Your task to perform on an android device: Go to Android settings Image 0: 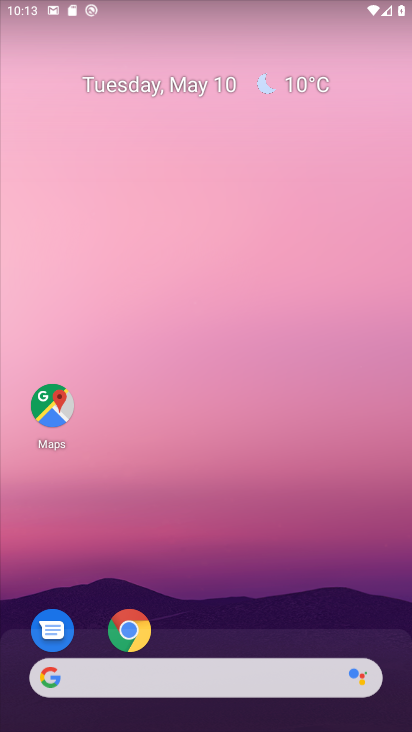
Step 0: drag from (286, 626) to (360, 5)
Your task to perform on an android device: Go to Android settings Image 1: 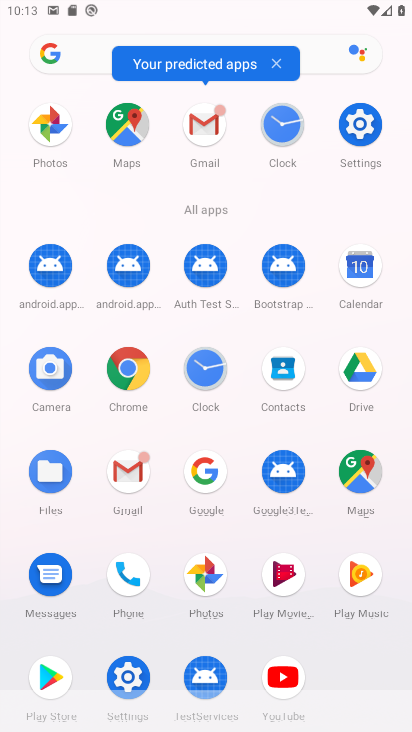
Step 1: click (349, 120)
Your task to perform on an android device: Go to Android settings Image 2: 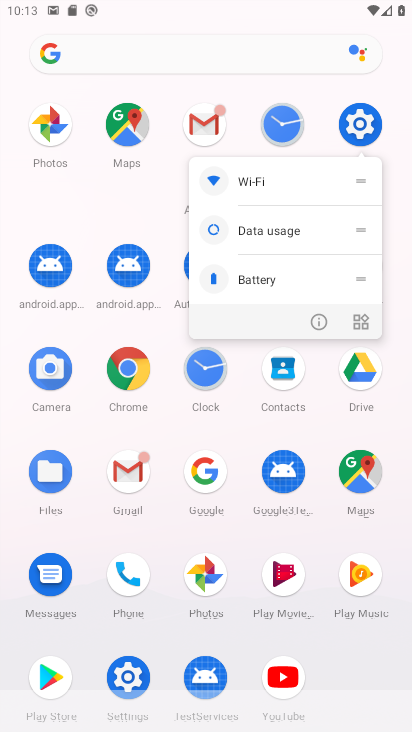
Step 2: click (351, 131)
Your task to perform on an android device: Go to Android settings Image 3: 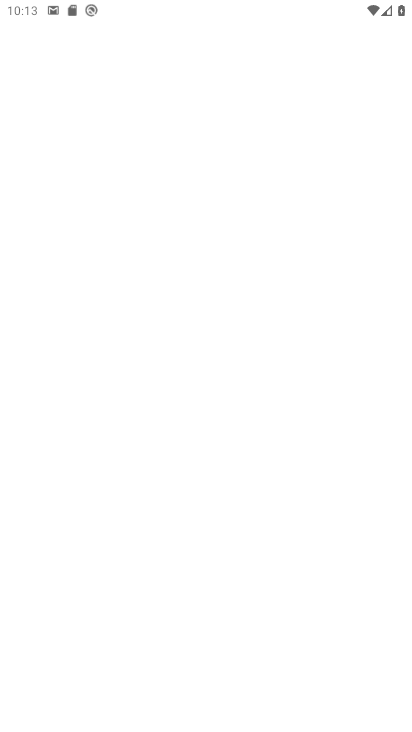
Step 3: click (357, 126)
Your task to perform on an android device: Go to Android settings Image 4: 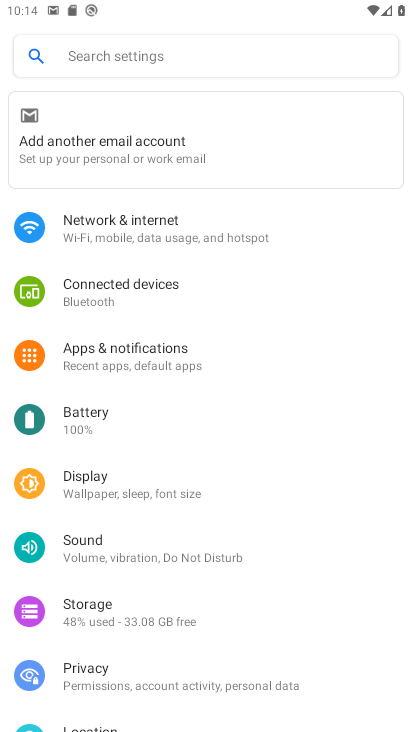
Step 4: task complete